Your task to perform on an android device: Open Google Maps Image 0: 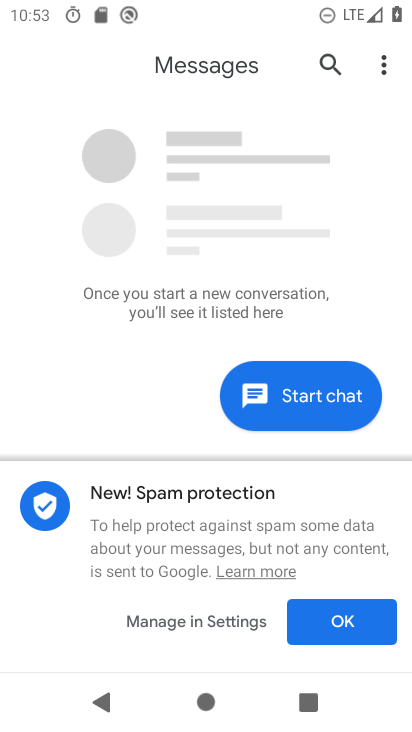
Step 0: press home button
Your task to perform on an android device: Open Google Maps Image 1: 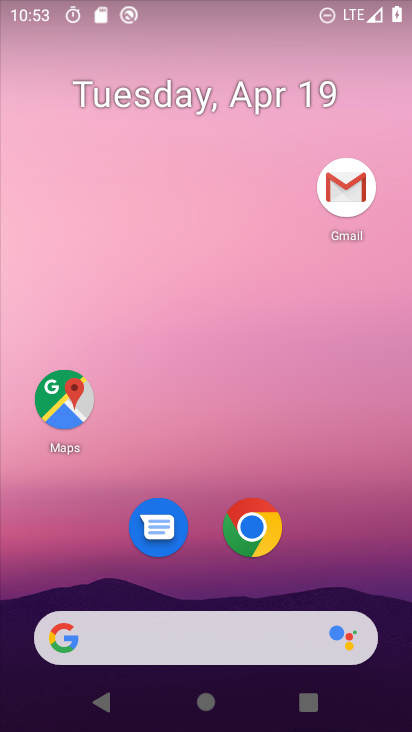
Step 1: drag from (334, 488) to (336, 79)
Your task to perform on an android device: Open Google Maps Image 2: 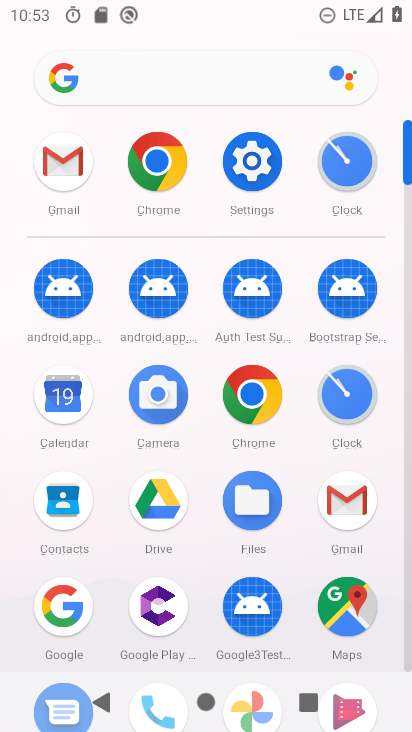
Step 2: click (344, 614)
Your task to perform on an android device: Open Google Maps Image 3: 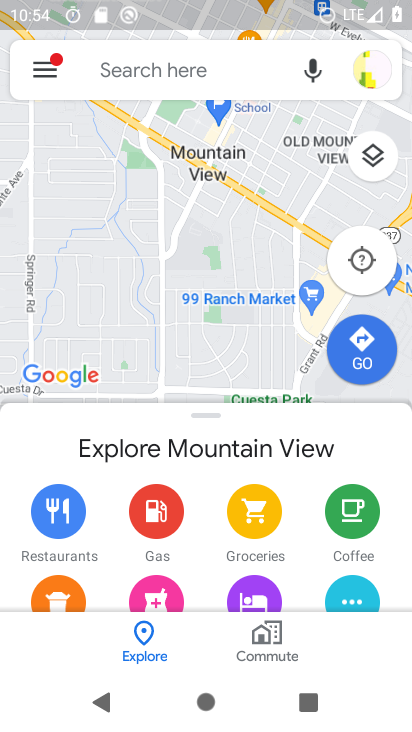
Step 3: task complete